Your task to perform on an android device: change the clock display to show seconds Image 0: 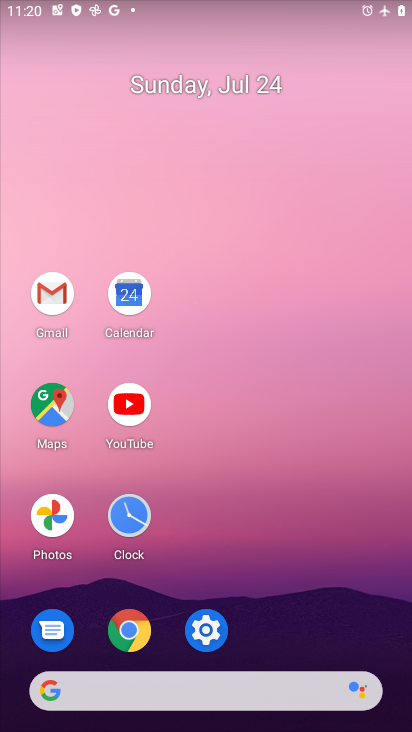
Step 0: click (124, 516)
Your task to perform on an android device: change the clock display to show seconds Image 1: 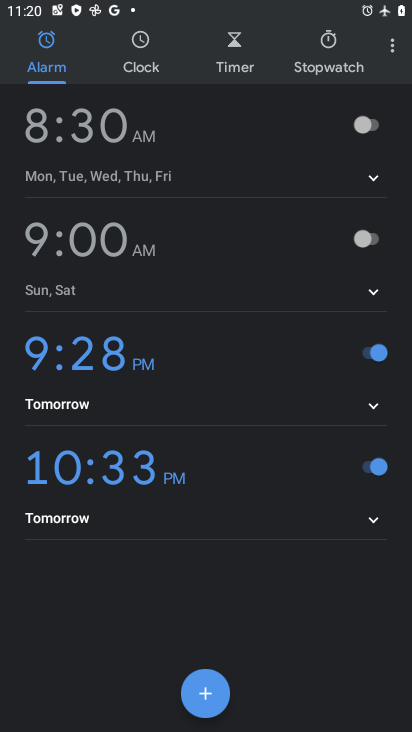
Step 1: click (393, 46)
Your task to perform on an android device: change the clock display to show seconds Image 2: 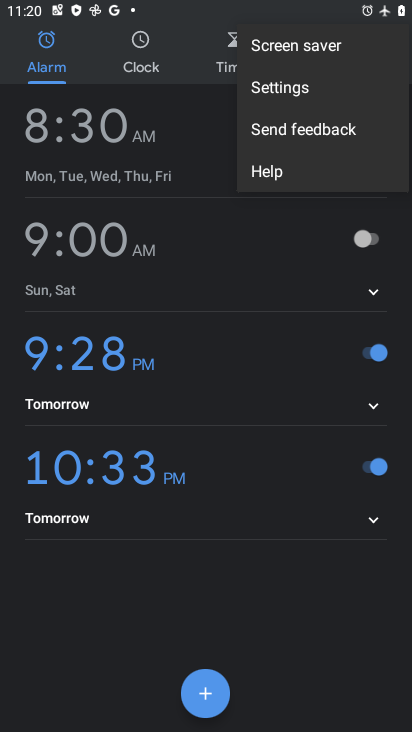
Step 2: click (293, 93)
Your task to perform on an android device: change the clock display to show seconds Image 3: 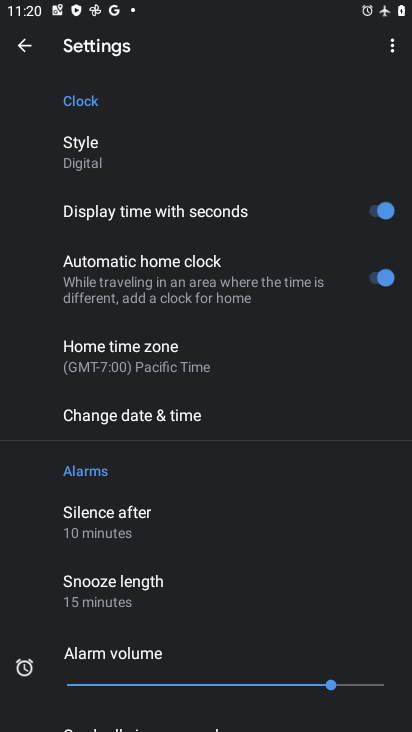
Step 3: task complete